Your task to perform on an android device: delete a single message in the gmail app Image 0: 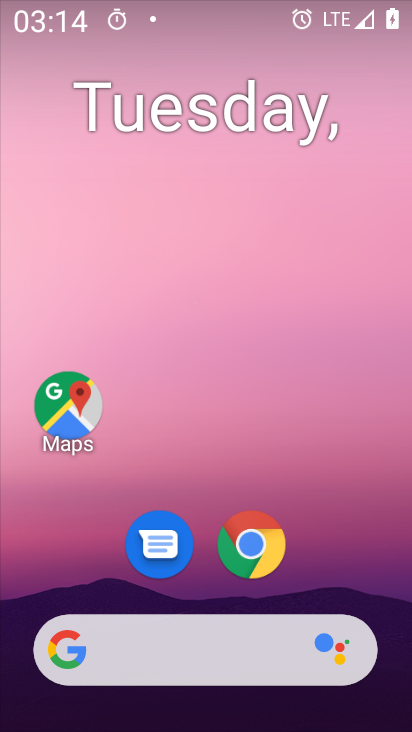
Step 0: drag from (322, 423) to (247, 14)
Your task to perform on an android device: delete a single message in the gmail app Image 1: 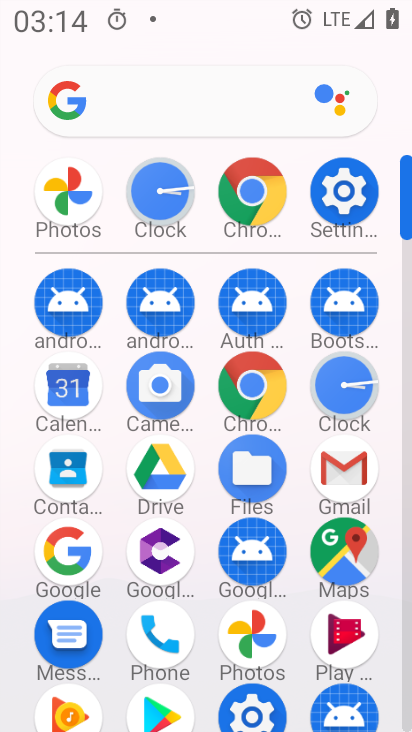
Step 1: drag from (14, 582) to (10, 190)
Your task to perform on an android device: delete a single message in the gmail app Image 2: 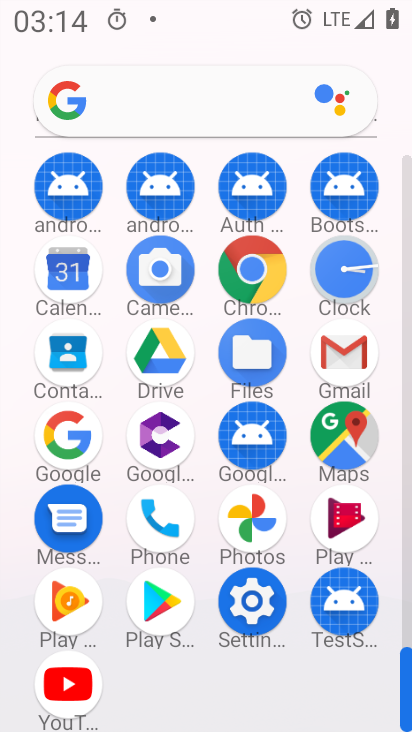
Step 2: drag from (12, 591) to (6, 219)
Your task to perform on an android device: delete a single message in the gmail app Image 3: 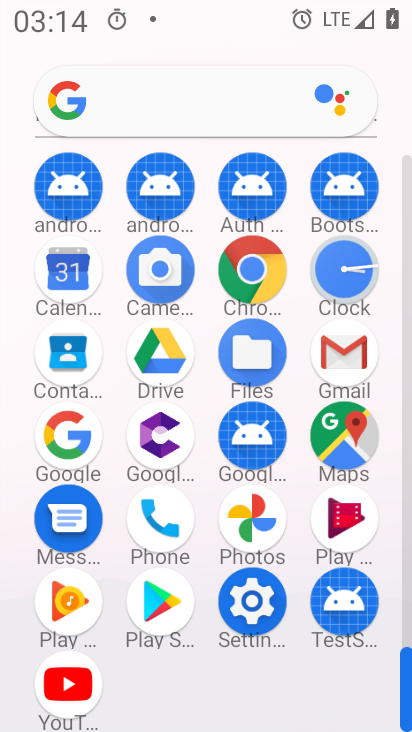
Step 3: click (339, 343)
Your task to perform on an android device: delete a single message in the gmail app Image 4: 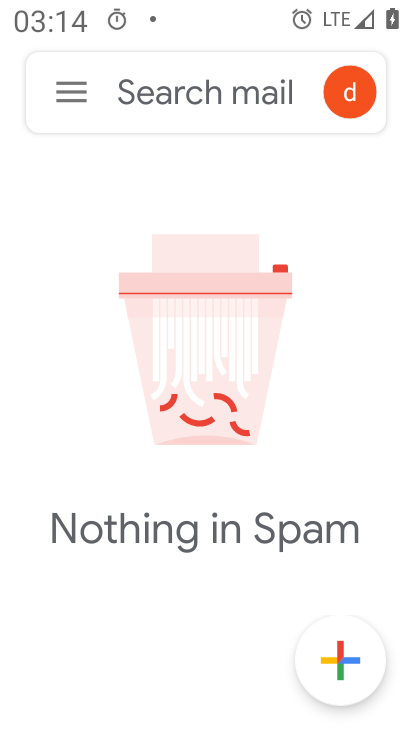
Step 4: click (73, 98)
Your task to perform on an android device: delete a single message in the gmail app Image 5: 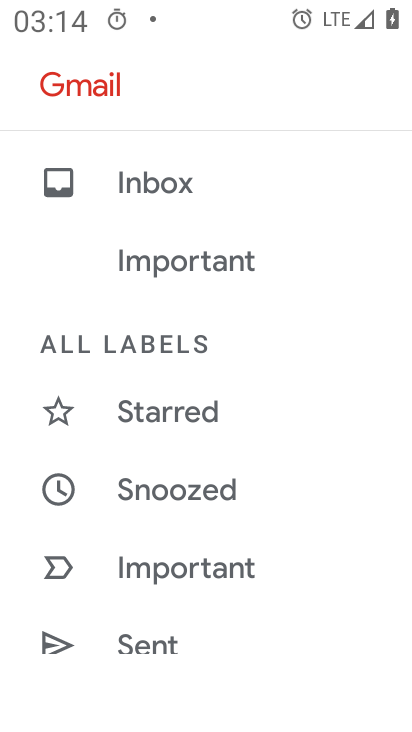
Step 5: drag from (283, 538) to (280, 123)
Your task to perform on an android device: delete a single message in the gmail app Image 6: 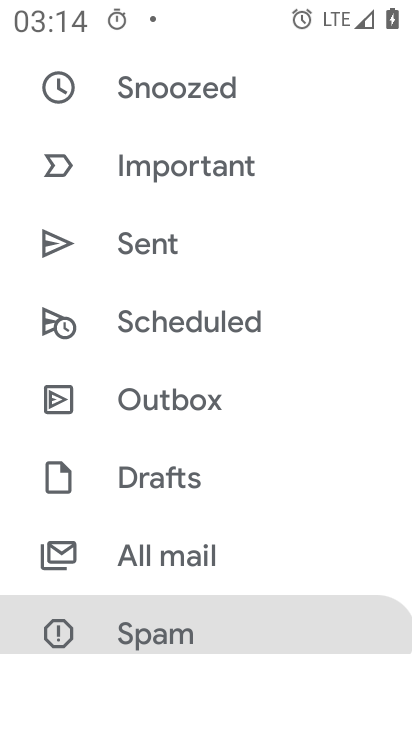
Step 6: drag from (235, 527) to (247, 154)
Your task to perform on an android device: delete a single message in the gmail app Image 7: 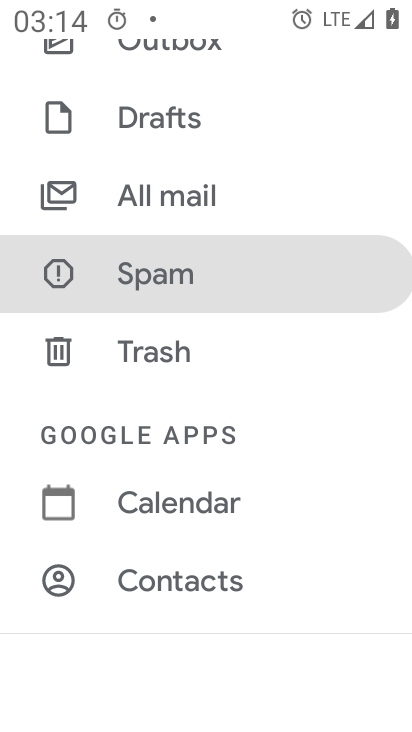
Step 7: click (216, 191)
Your task to perform on an android device: delete a single message in the gmail app Image 8: 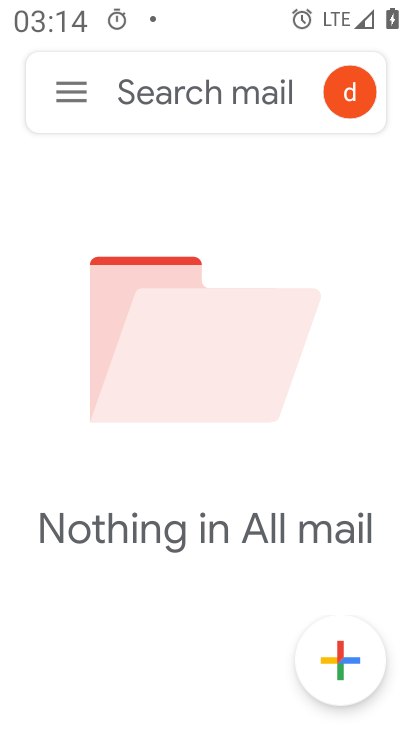
Step 8: click (53, 86)
Your task to perform on an android device: delete a single message in the gmail app Image 9: 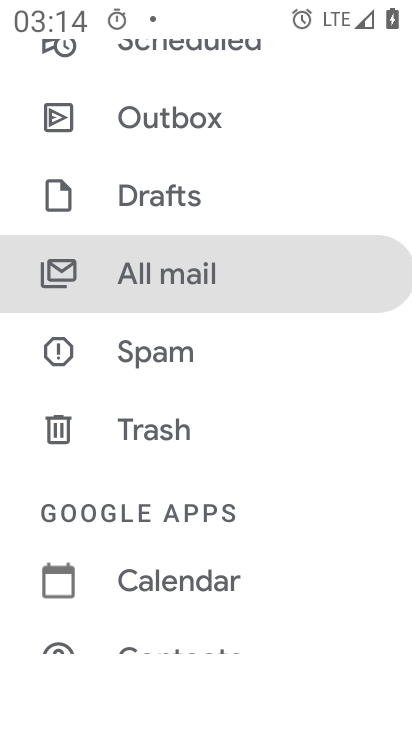
Step 9: drag from (209, 135) to (236, 557)
Your task to perform on an android device: delete a single message in the gmail app Image 10: 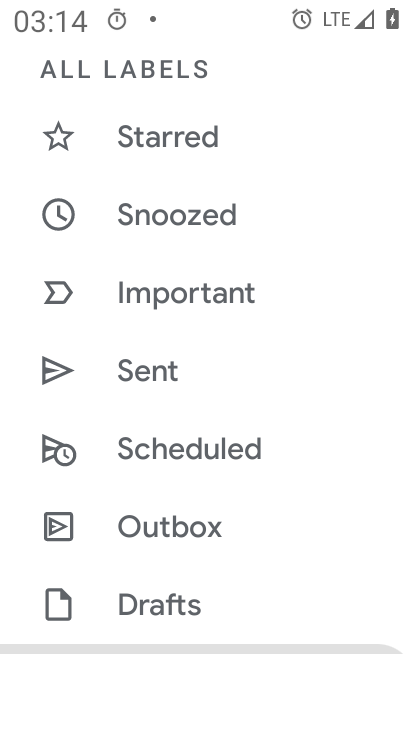
Step 10: drag from (229, 160) to (259, 507)
Your task to perform on an android device: delete a single message in the gmail app Image 11: 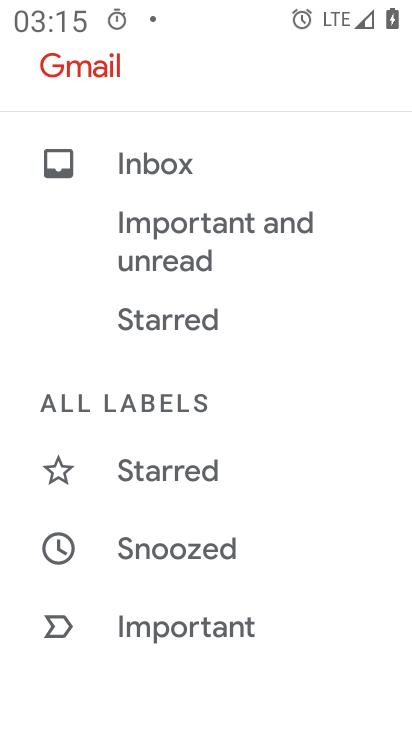
Step 11: click (190, 165)
Your task to perform on an android device: delete a single message in the gmail app Image 12: 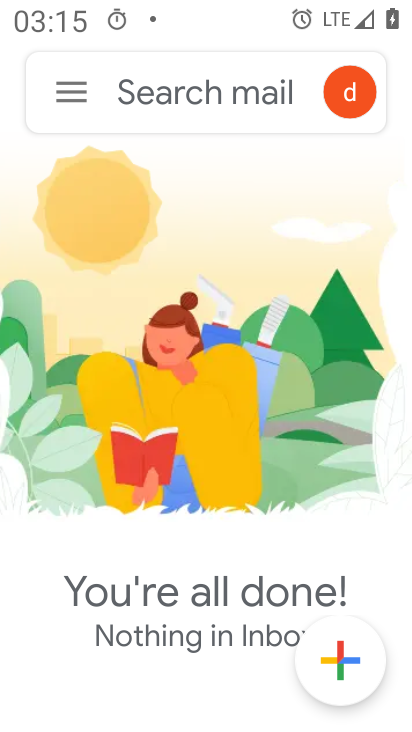
Step 12: click (65, 85)
Your task to perform on an android device: delete a single message in the gmail app Image 13: 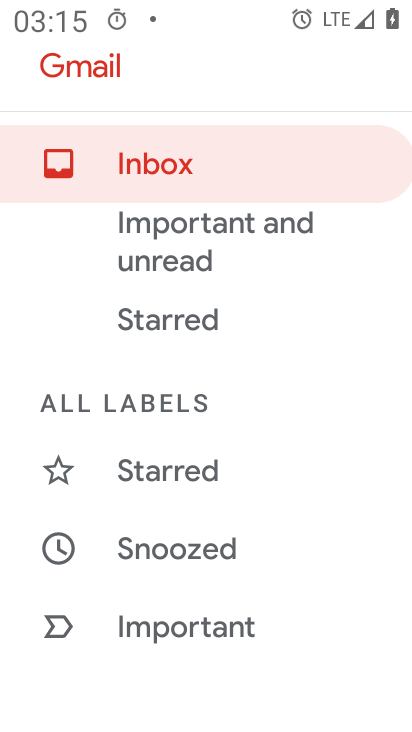
Step 13: drag from (243, 561) to (266, 151)
Your task to perform on an android device: delete a single message in the gmail app Image 14: 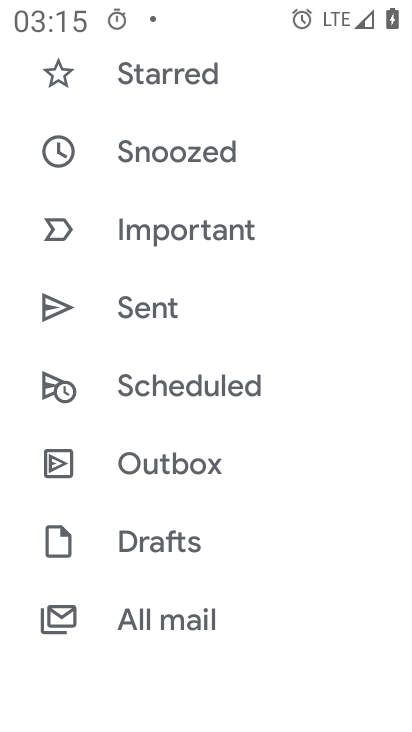
Step 14: click (206, 600)
Your task to perform on an android device: delete a single message in the gmail app Image 15: 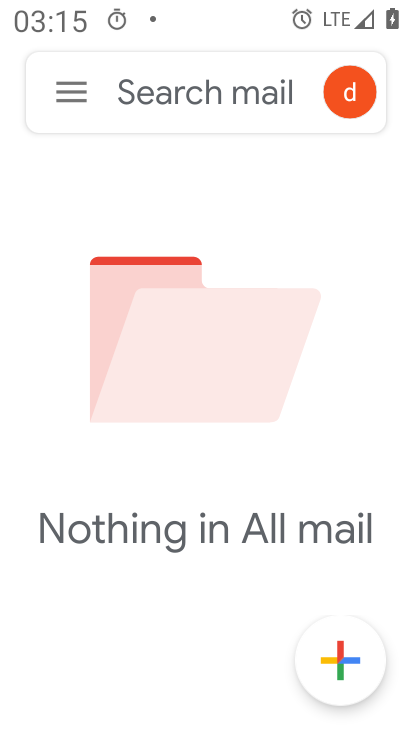
Step 15: task complete